Your task to perform on an android device: Go to Wikipedia Image 0: 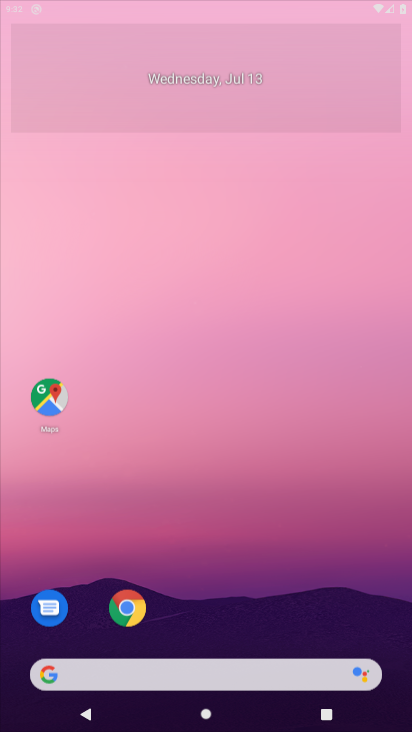
Step 0: click (261, 120)
Your task to perform on an android device: Go to Wikipedia Image 1: 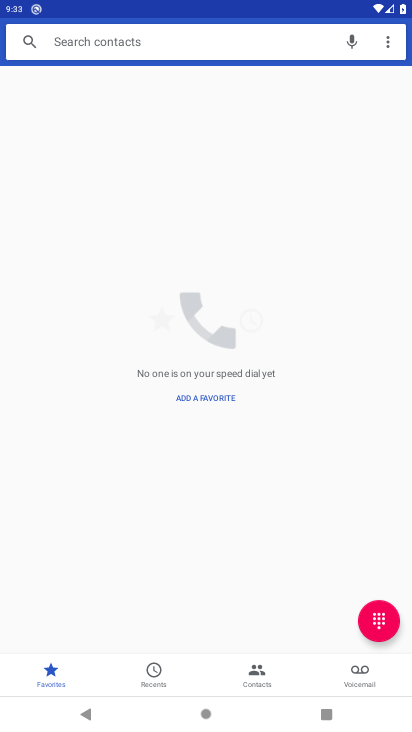
Step 1: press home button
Your task to perform on an android device: Go to Wikipedia Image 2: 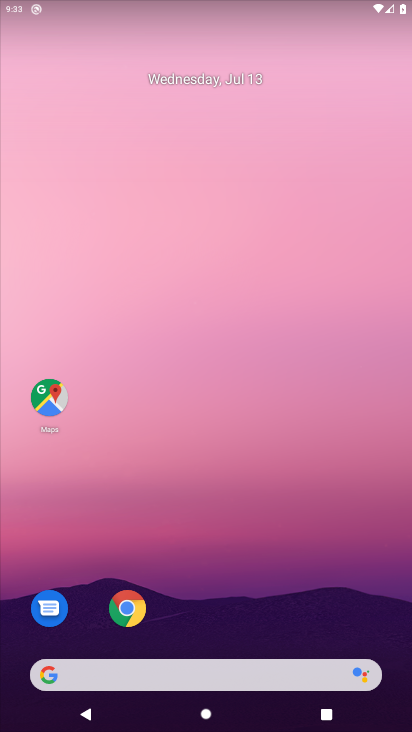
Step 2: click (110, 671)
Your task to perform on an android device: Go to Wikipedia Image 3: 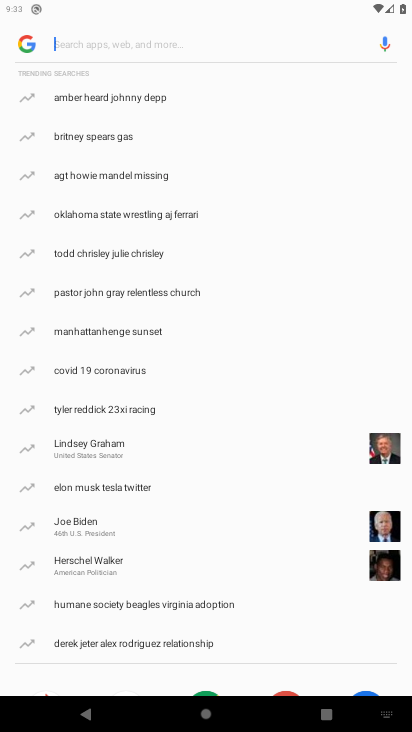
Step 3: type "Wikipedia"
Your task to perform on an android device: Go to Wikipedia Image 4: 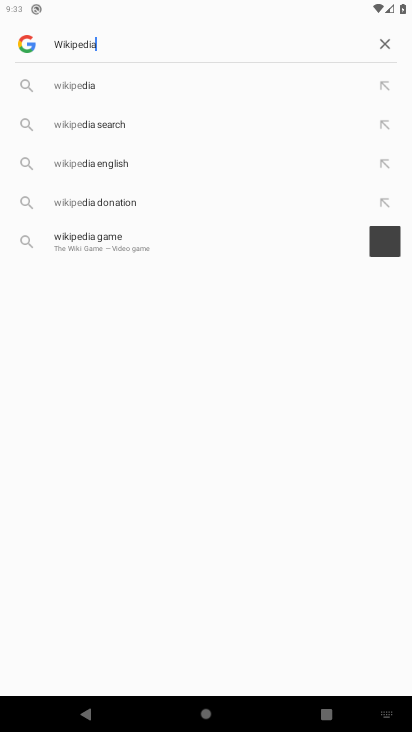
Step 4: type ""
Your task to perform on an android device: Go to Wikipedia Image 5: 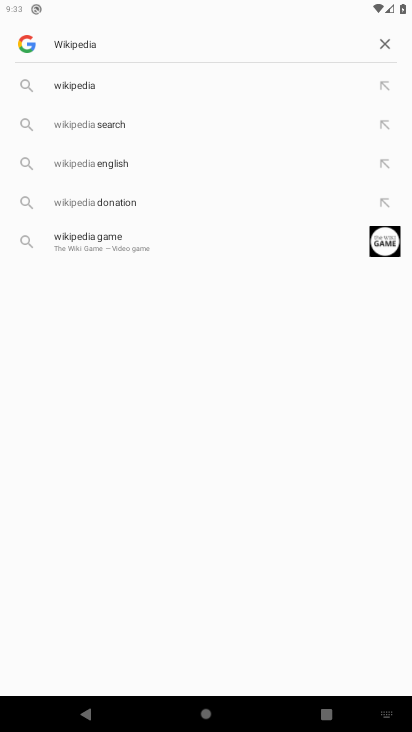
Step 5: click (80, 79)
Your task to perform on an android device: Go to Wikipedia Image 6: 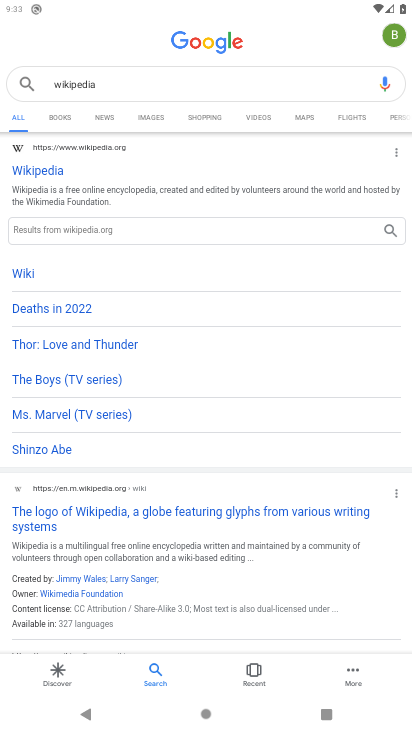
Step 6: task complete